Your task to perform on an android device: toggle priority inbox in the gmail app Image 0: 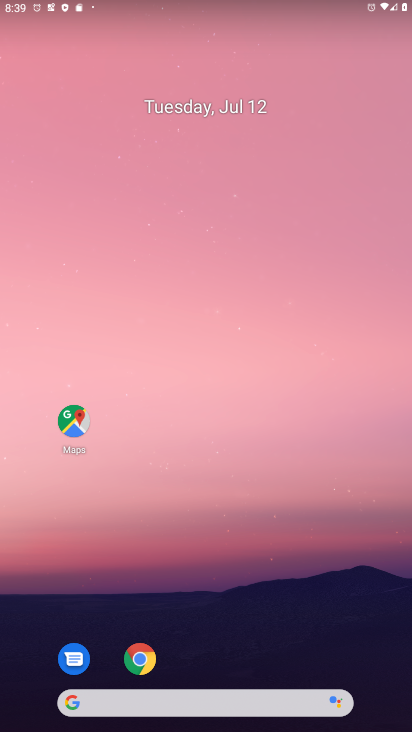
Step 0: drag from (192, 703) to (202, 152)
Your task to perform on an android device: toggle priority inbox in the gmail app Image 1: 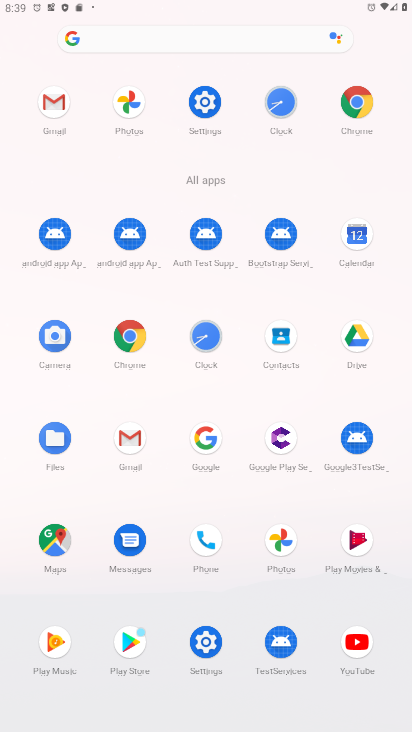
Step 1: click (54, 102)
Your task to perform on an android device: toggle priority inbox in the gmail app Image 2: 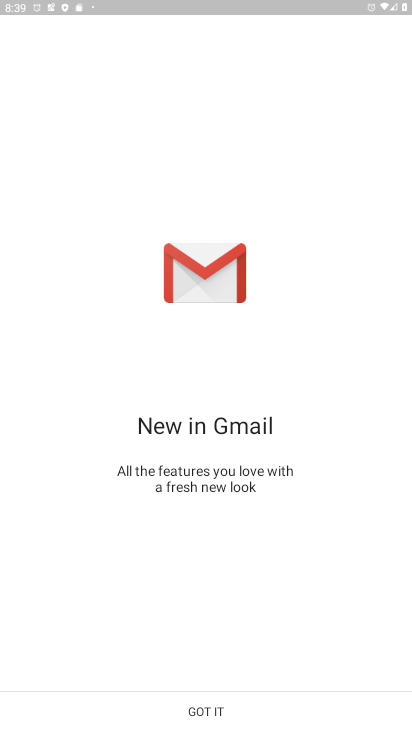
Step 2: click (198, 712)
Your task to perform on an android device: toggle priority inbox in the gmail app Image 3: 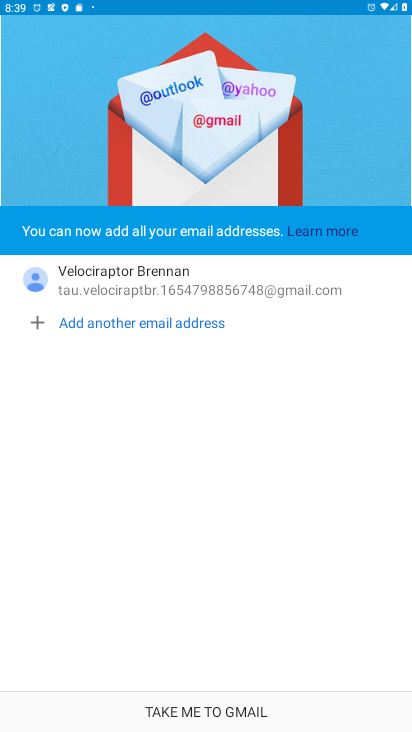
Step 3: click (198, 712)
Your task to perform on an android device: toggle priority inbox in the gmail app Image 4: 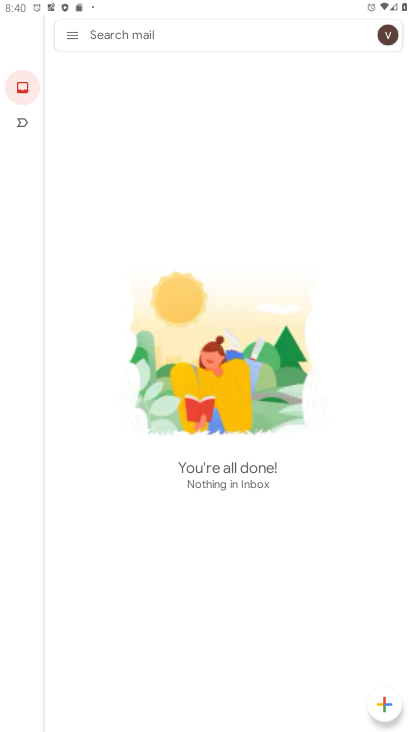
Step 4: click (71, 33)
Your task to perform on an android device: toggle priority inbox in the gmail app Image 5: 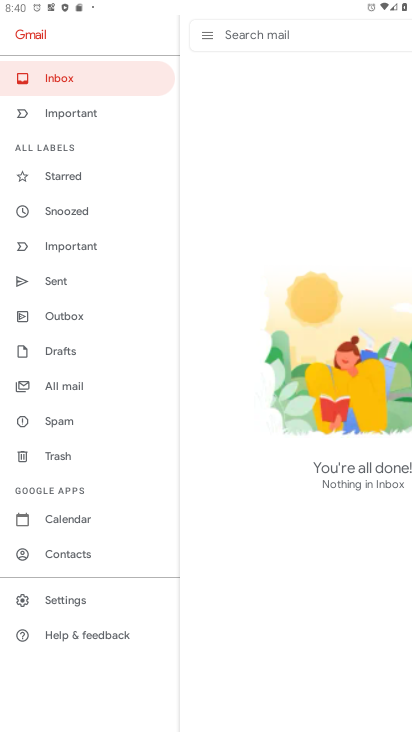
Step 5: click (64, 599)
Your task to perform on an android device: toggle priority inbox in the gmail app Image 6: 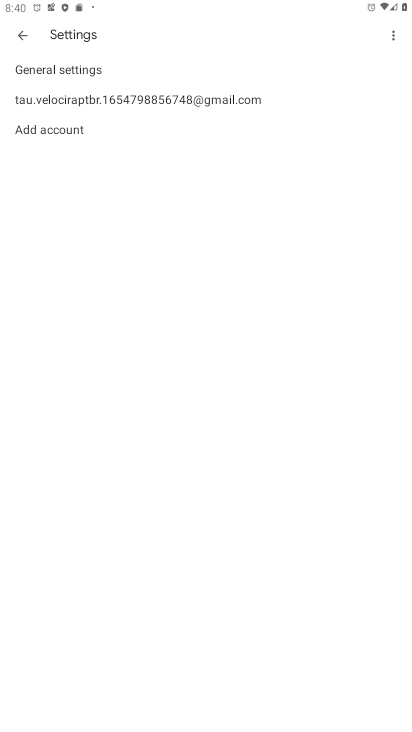
Step 6: click (203, 103)
Your task to perform on an android device: toggle priority inbox in the gmail app Image 7: 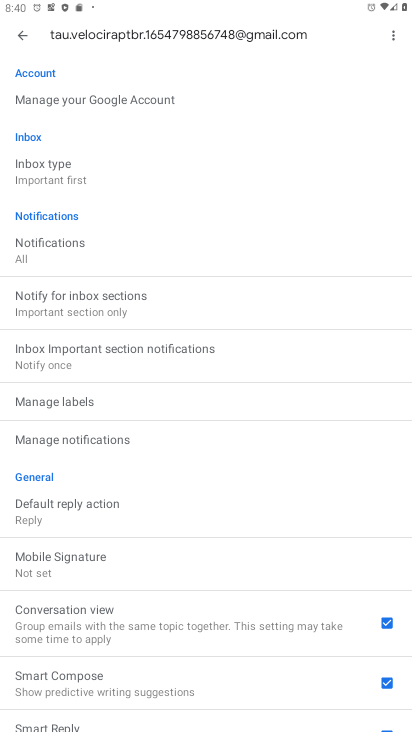
Step 7: click (67, 180)
Your task to perform on an android device: toggle priority inbox in the gmail app Image 8: 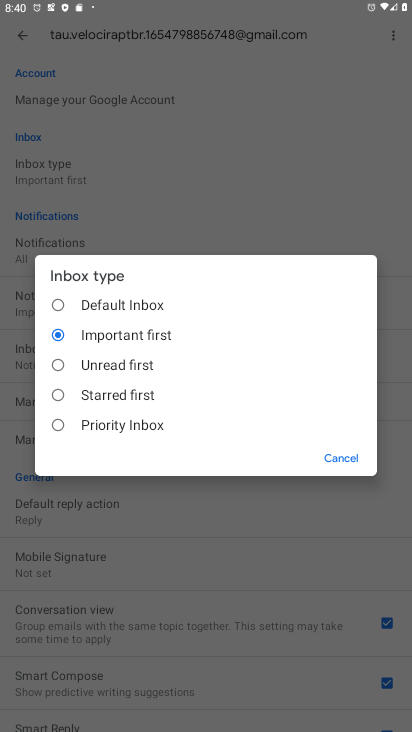
Step 8: click (58, 419)
Your task to perform on an android device: toggle priority inbox in the gmail app Image 9: 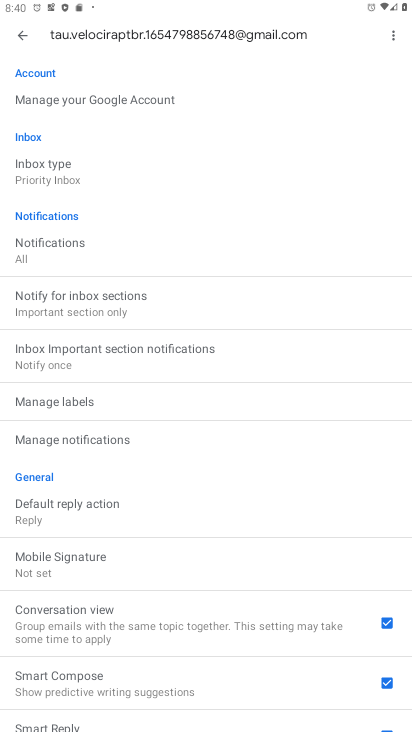
Step 9: task complete